Your task to perform on an android device: Go to Yahoo.com Image 0: 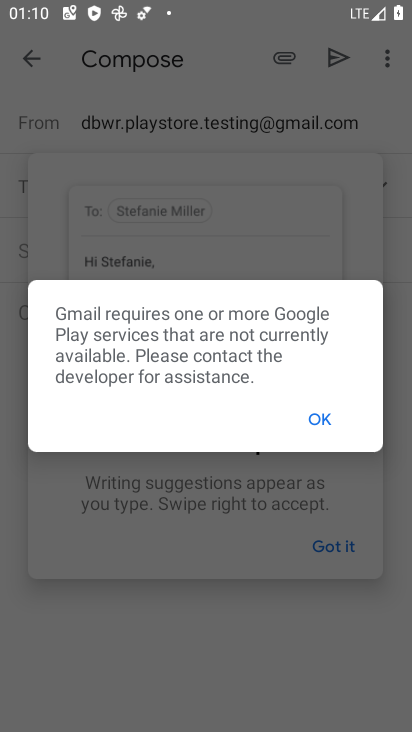
Step 0: press home button
Your task to perform on an android device: Go to Yahoo.com Image 1: 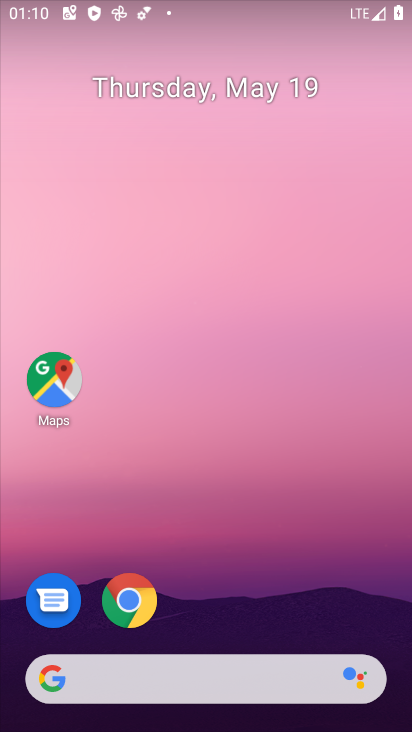
Step 1: click (133, 604)
Your task to perform on an android device: Go to Yahoo.com Image 2: 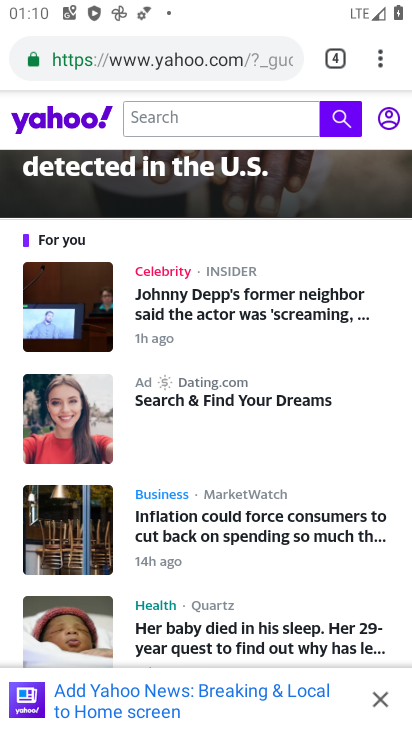
Step 2: task complete